Your task to perform on an android device: Go to ESPN.com Image 0: 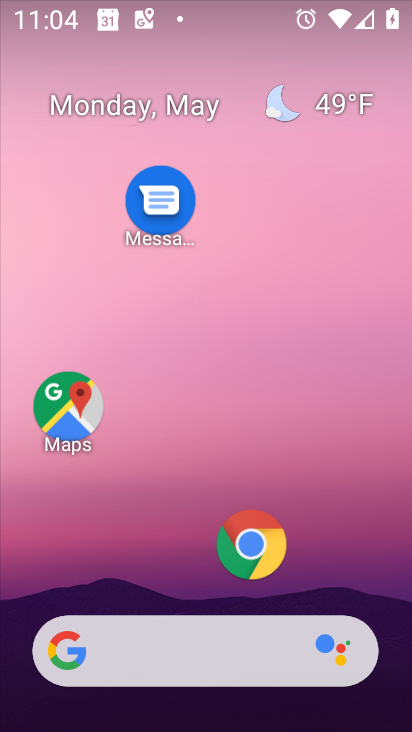
Step 0: click (252, 542)
Your task to perform on an android device: Go to ESPN.com Image 1: 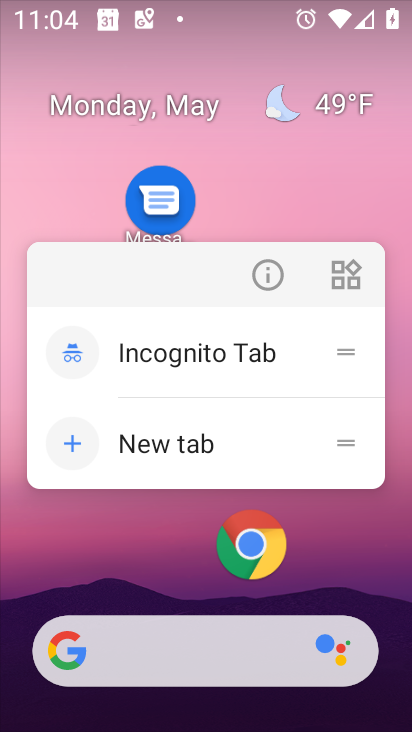
Step 1: click (252, 542)
Your task to perform on an android device: Go to ESPN.com Image 2: 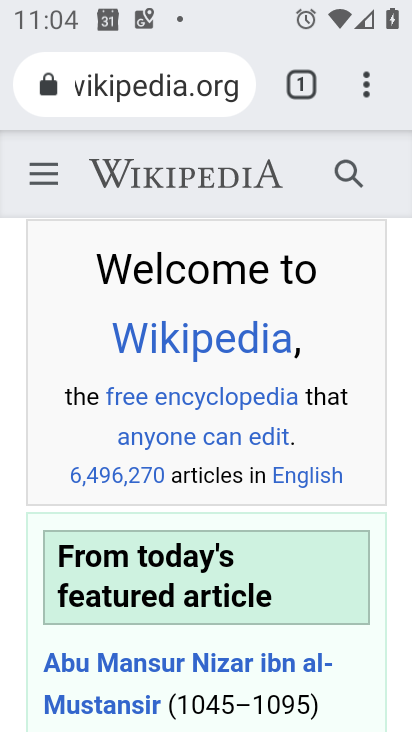
Step 2: click (188, 100)
Your task to perform on an android device: Go to ESPN.com Image 3: 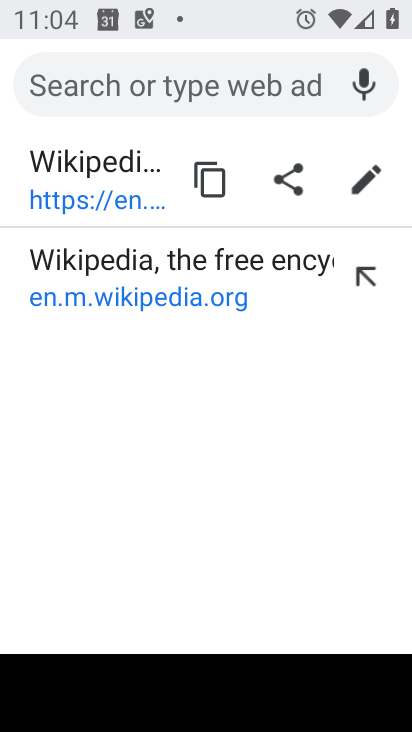
Step 3: type "ESPN.com"
Your task to perform on an android device: Go to ESPN.com Image 4: 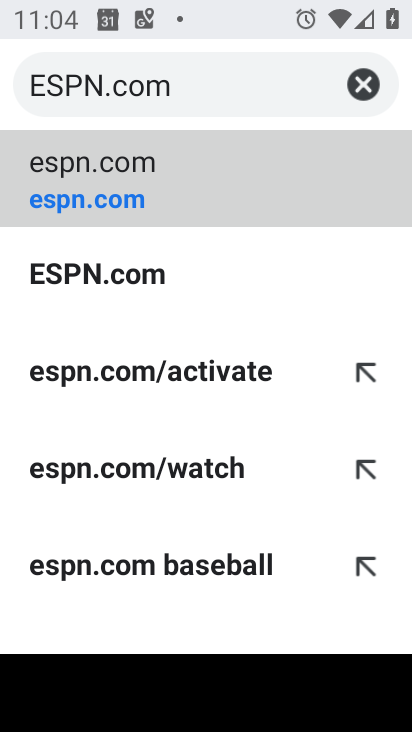
Step 4: click (102, 177)
Your task to perform on an android device: Go to ESPN.com Image 5: 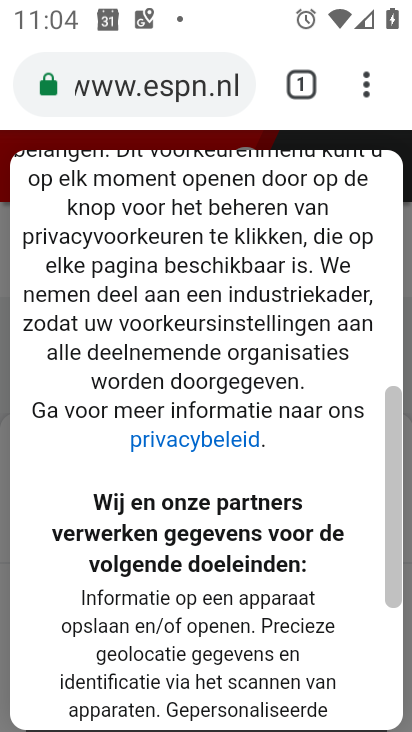
Step 5: task complete